Your task to perform on an android device: search for starred emails in the gmail app Image 0: 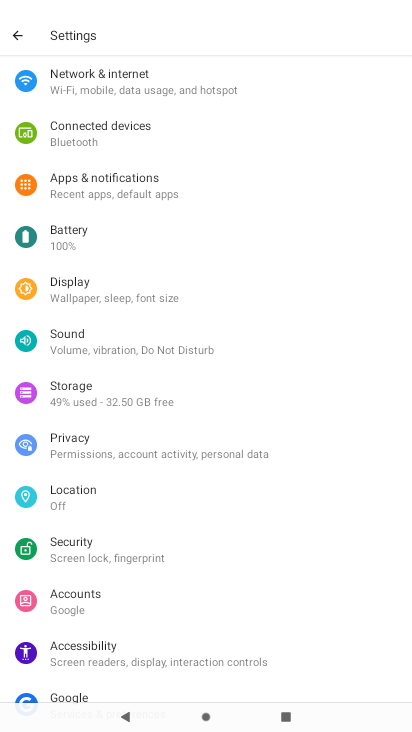
Step 0: press home button
Your task to perform on an android device: search for starred emails in the gmail app Image 1: 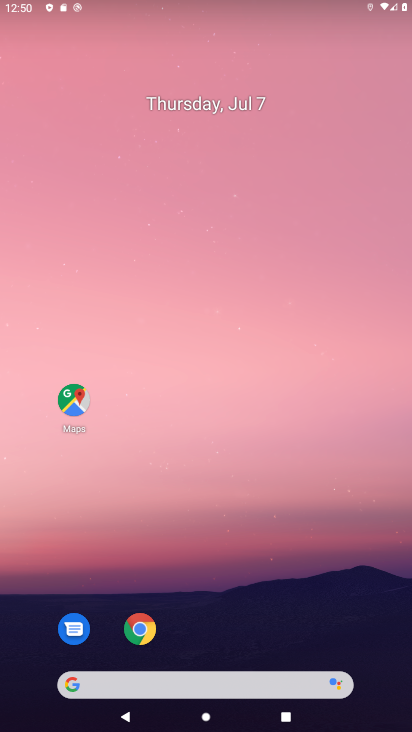
Step 1: drag from (203, 622) to (236, 100)
Your task to perform on an android device: search for starred emails in the gmail app Image 2: 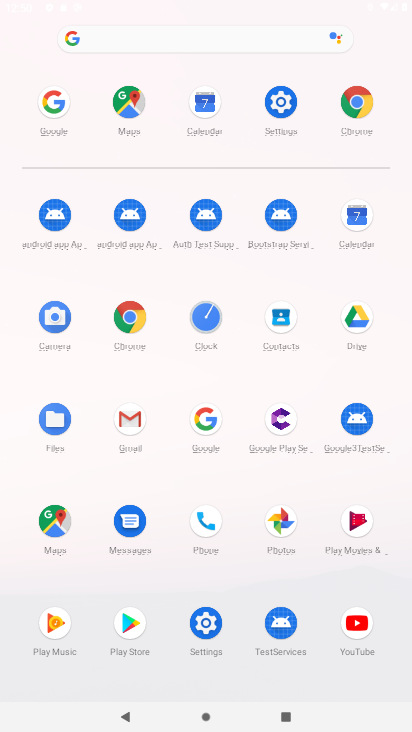
Step 2: click (129, 422)
Your task to perform on an android device: search for starred emails in the gmail app Image 3: 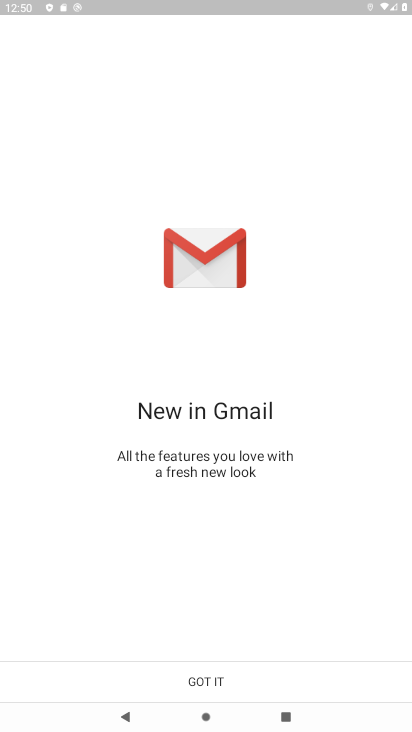
Step 3: click (212, 673)
Your task to perform on an android device: search for starred emails in the gmail app Image 4: 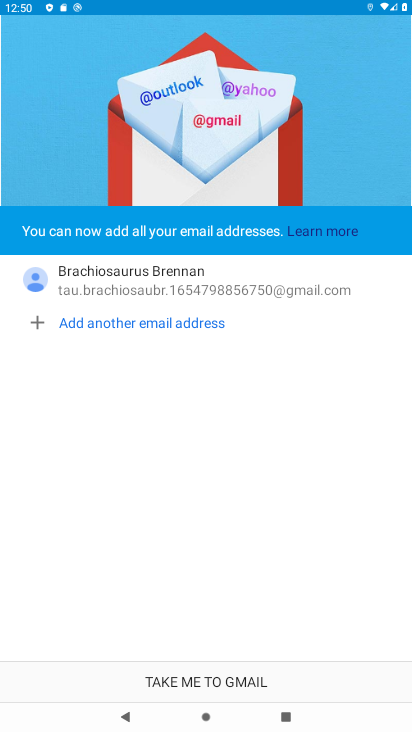
Step 4: click (212, 673)
Your task to perform on an android device: search for starred emails in the gmail app Image 5: 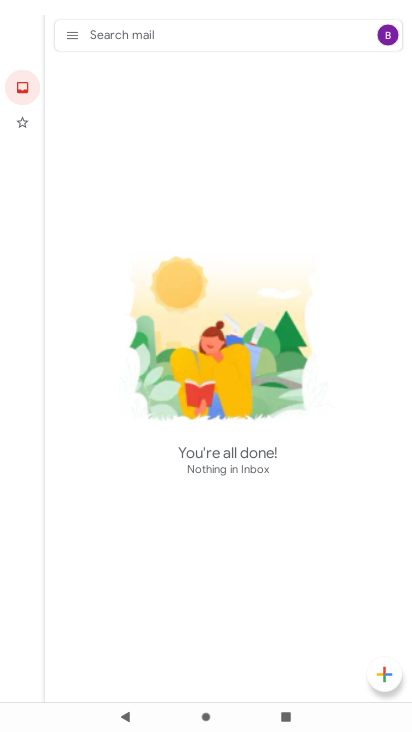
Step 5: click (70, 38)
Your task to perform on an android device: search for starred emails in the gmail app Image 6: 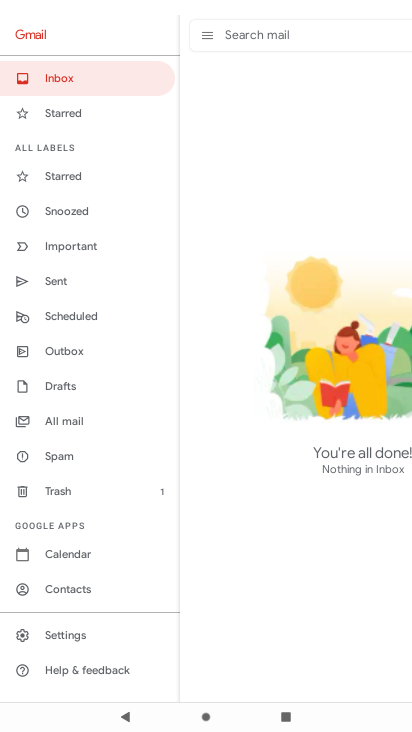
Step 6: click (61, 175)
Your task to perform on an android device: search for starred emails in the gmail app Image 7: 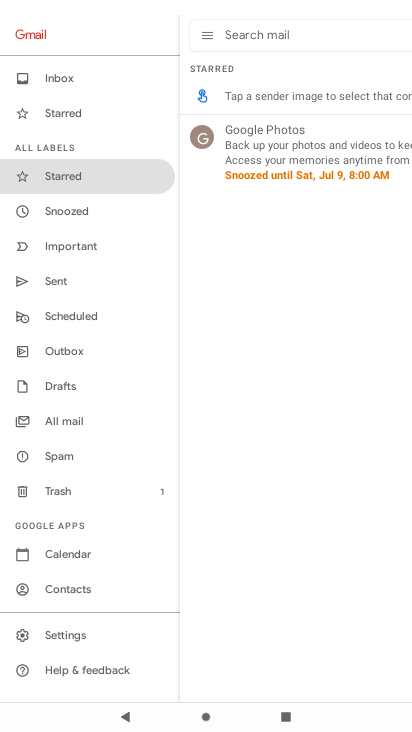
Step 7: task complete